Your task to perform on an android device: Go to Google maps Image 0: 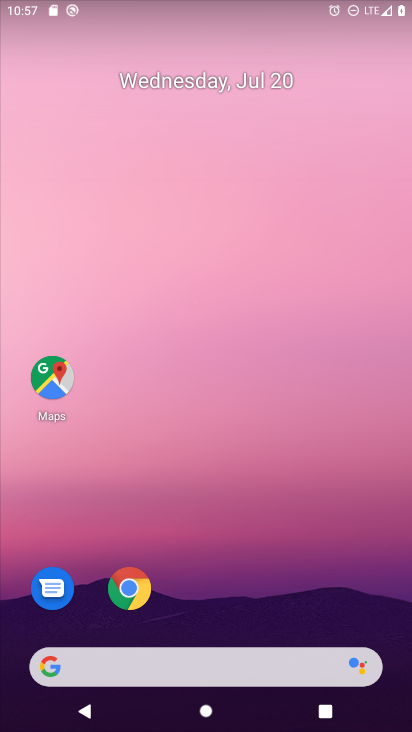
Step 0: click (44, 390)
Your task to perform on an android device: Go to Google maps Image 1: 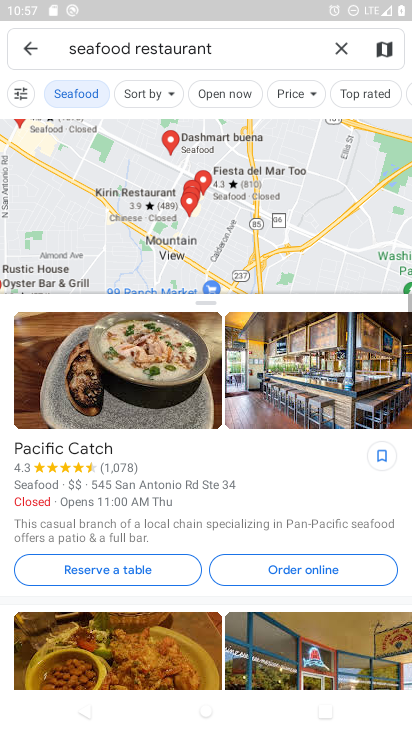
Step 1: task complete